Your task to perform on an android device: Go to location settings Image 0: 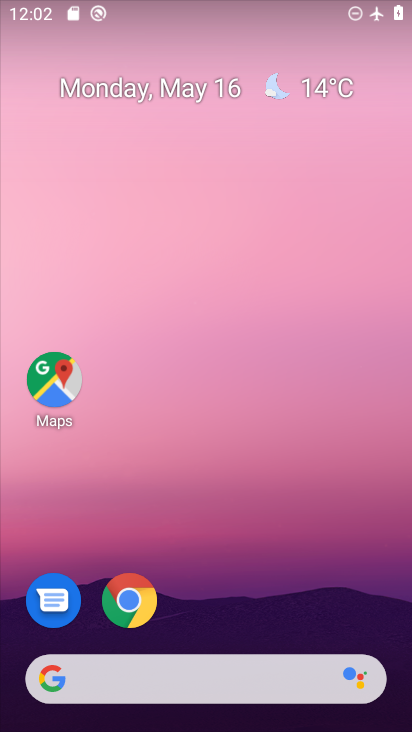
Step 0: drag from (400, 636) to (309, 55)
Your task to perform on an android device: Go to location settings Image 1: 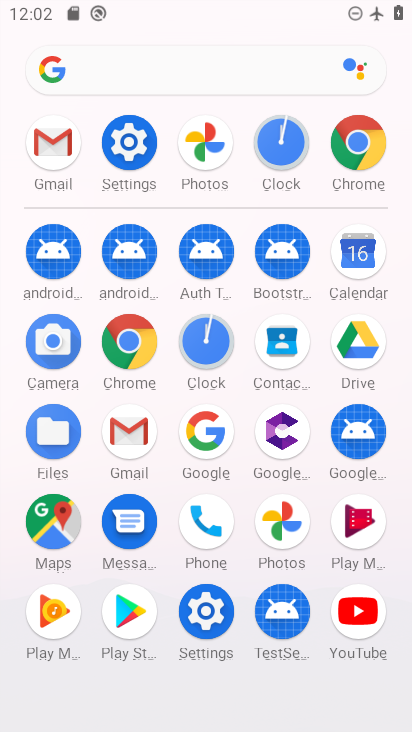
Step 1: click (207, 606)
Your task to perform on an android device: Go to location settings Image 2: 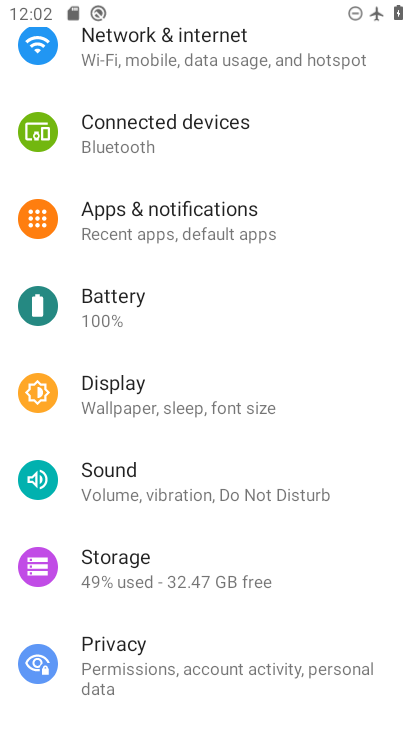
Step 2: drag from (344, 675) to (312, 255)
Your task to perform on an android device: Go to location settings Image 3: 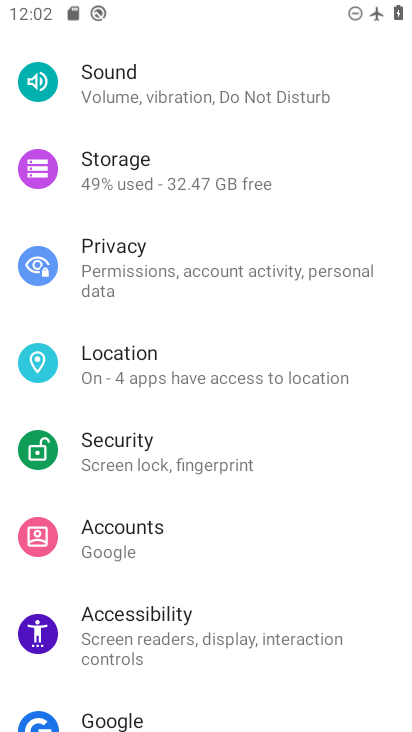
Step 3: click (111, 362)
Your task to perform on an android device: Go to location settings Image 4: 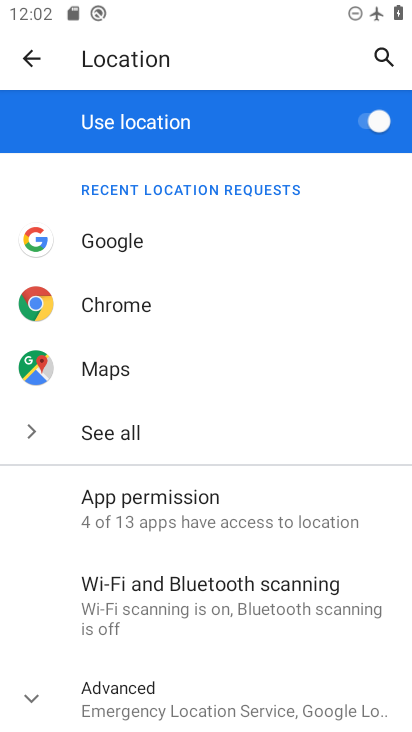
Step 4: drag from (304, 674) to (333, 422)
Your task to perform on an android device: Go to location settings Image 5: 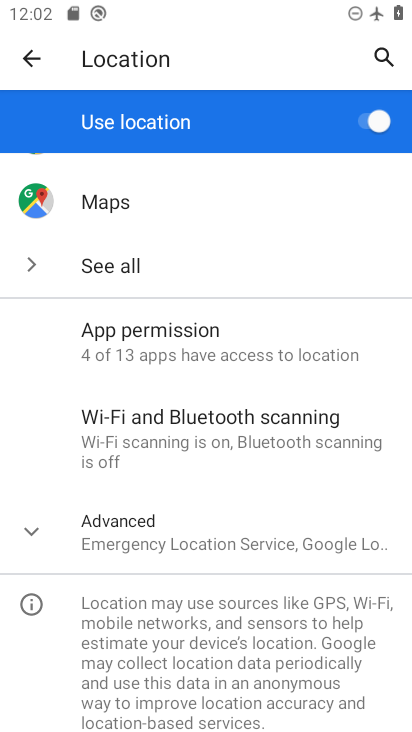
Step 5: click (33, 522)
Your task to perform on an android device: Go to location settings Image 6: 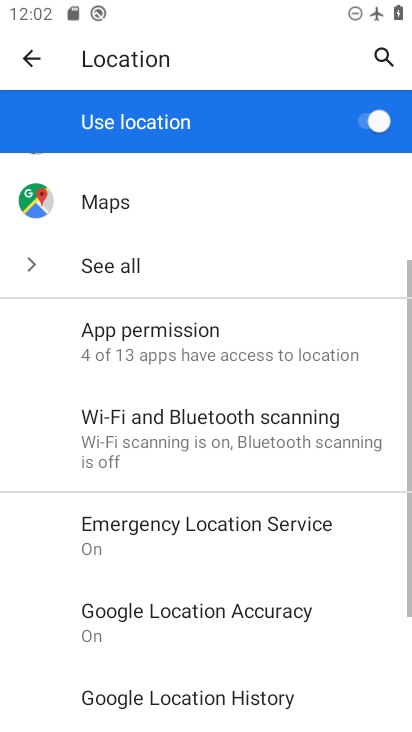
Step 6: task complete